Your task to perform on an android device: Open Google Chrome and click the shortcut for Amazon.com Image 0: 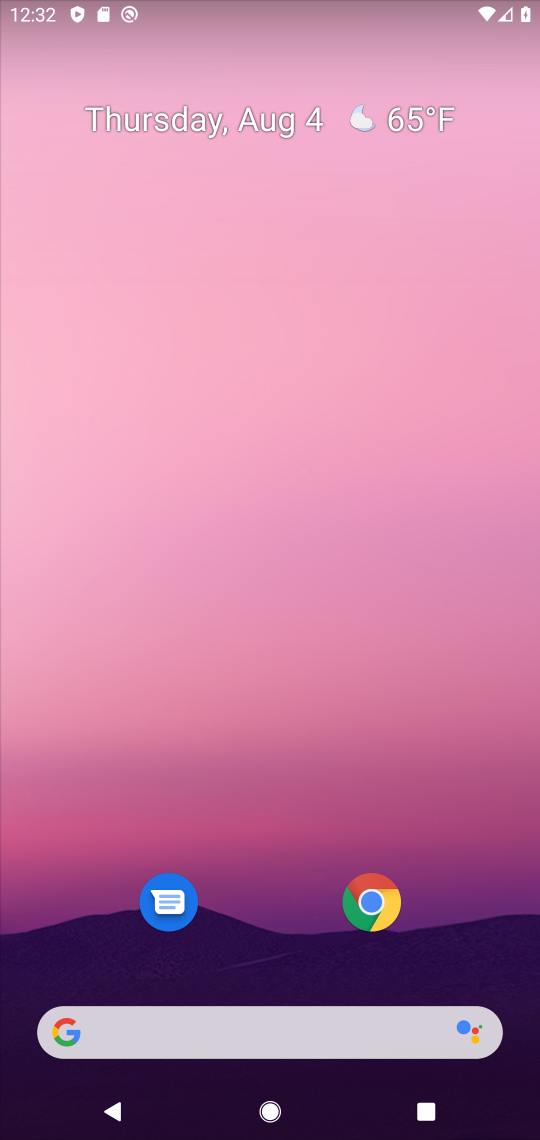
Step 0: click (372, 906)
Your task to perform on an android device: Open Google Chrome and click the shortcut for Amazon.com Image 1: 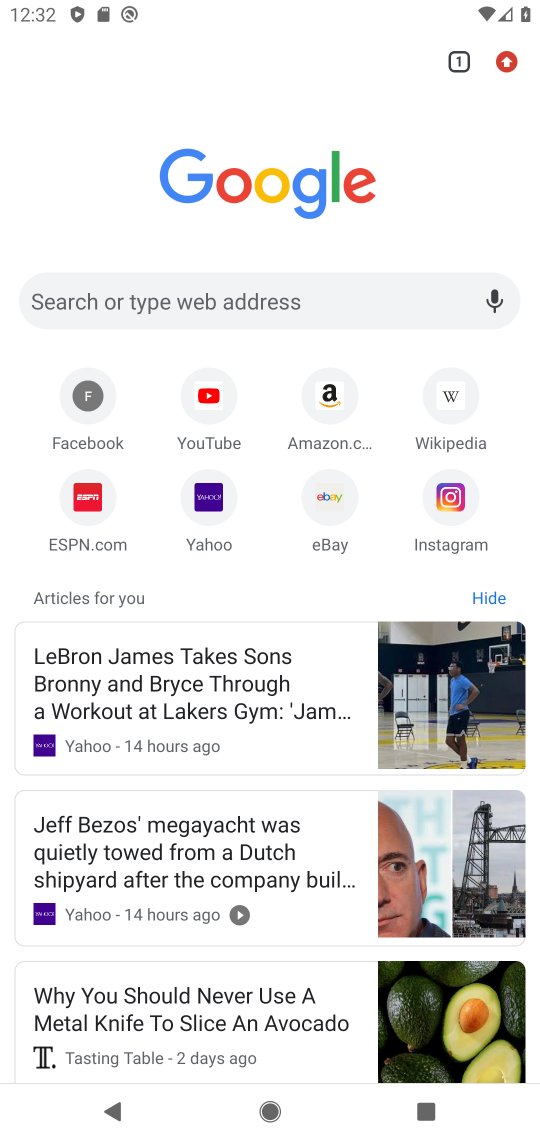
Step 1: click (332, 392)
Your task to perform on an android device: Open Google Chrome and click the shortcut for Amazon.com Image 2: 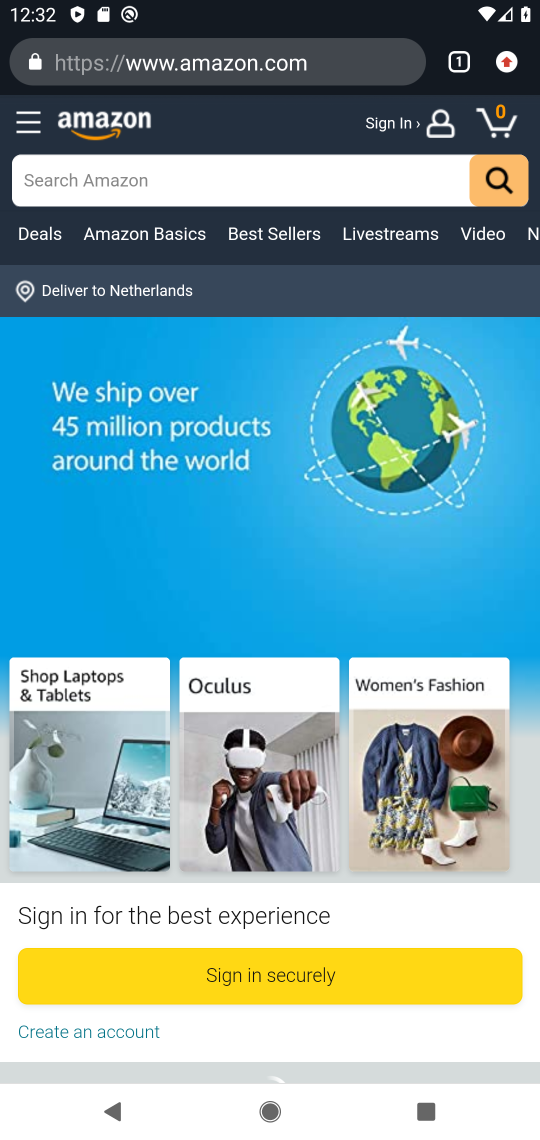
Step 2: task complete